Your task to perform on an android device: all mails in gmail Image 0: 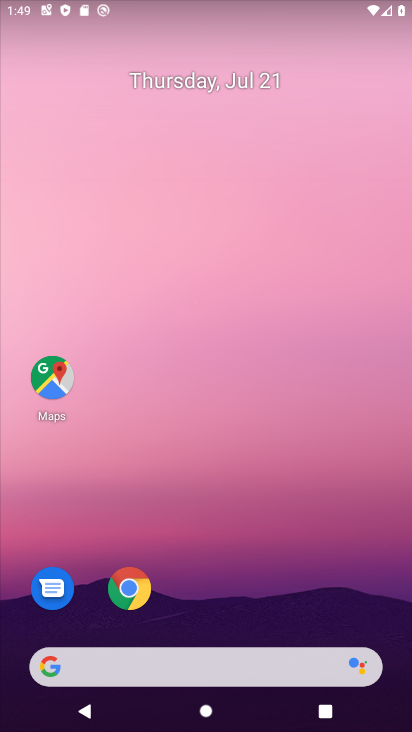
Step 0: drag from (224, 628) to (187, 70)
Your task to perform on an android device: all mails in gmail Image 1: 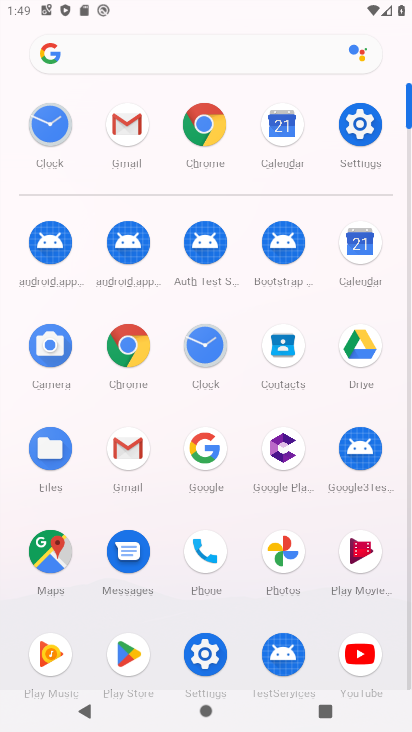
Step 1: click (124, 438)
Your task to perform on an android device: all mails in gmail Image 2: 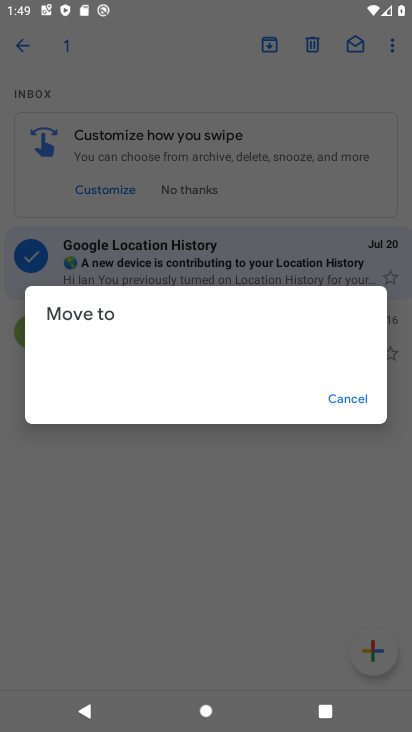
Step 2: click (332, 397)
Your task to perform on an android device: all mails in gmail Image 3: 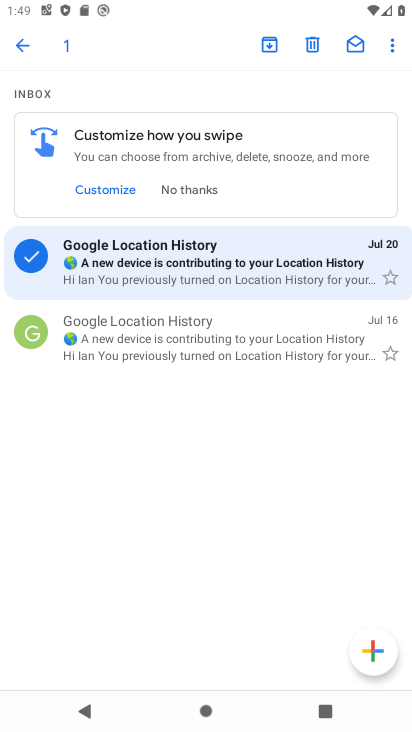
Step 3: click (29, 40)
Your task to perform on an android device: all mails in gmail Image 4: 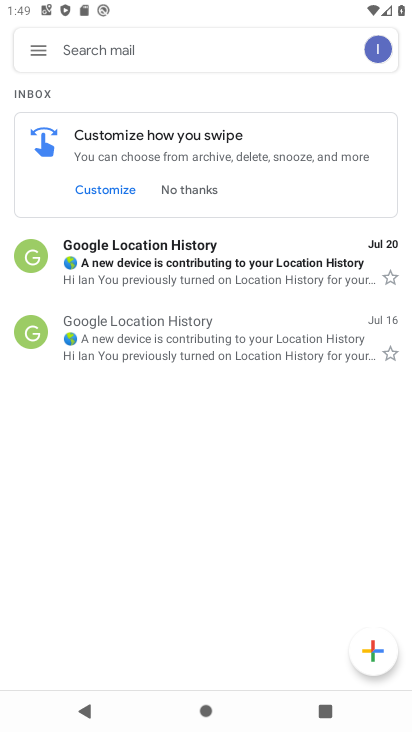
Step 4: click (31, 51)
Your task to perform on an android device: all mails in gmail Image 5: 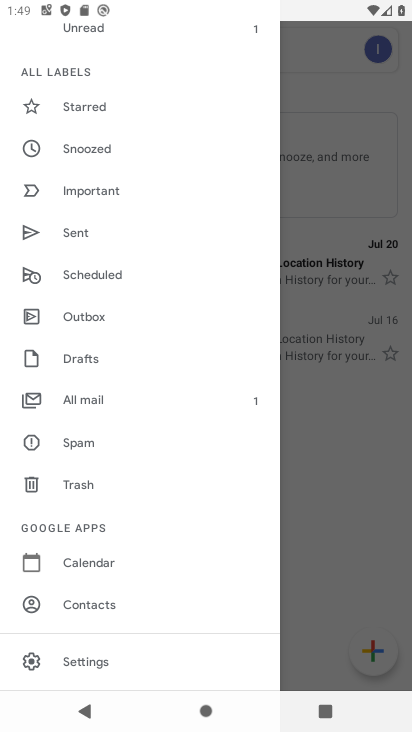
Step 5: click (31, 43)
Your task to perform on an android device: all mails in gmail Image 6: 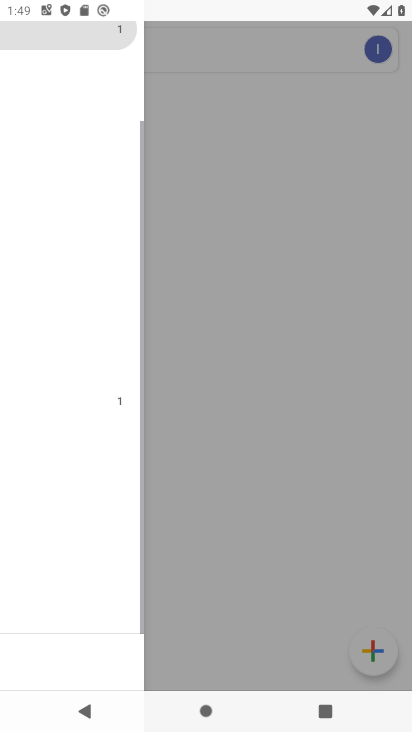
Step 6: click (72, 398)
Your task to perform on an android device: all mails in gmail Image 7: 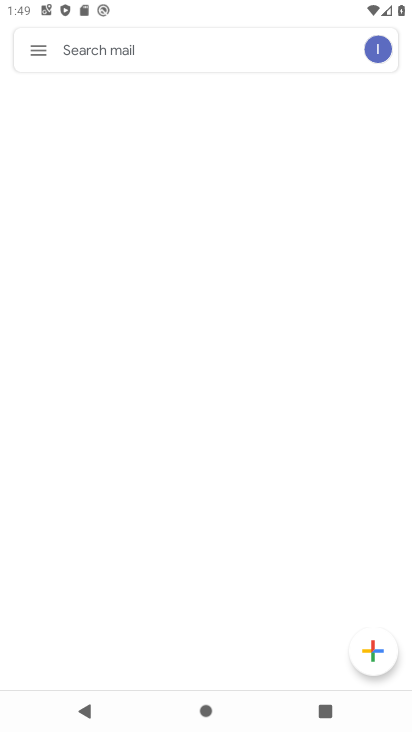
Step 7: click (72, 396)
Your task to perform on an android device: all mails in gmail Image 8: 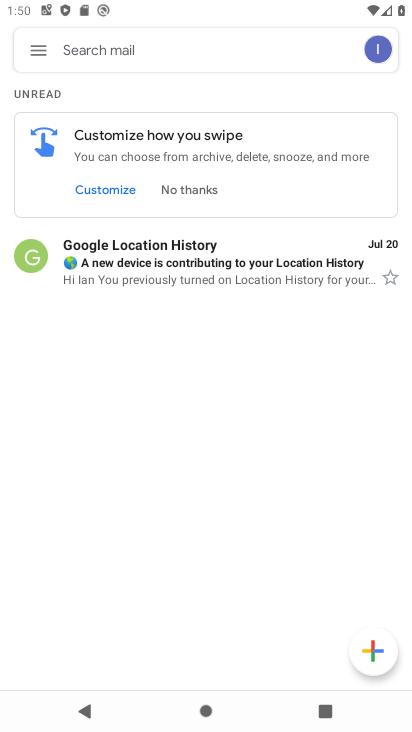
Step 8: task complete